Your task to perform on an android device: check google app version Image 0: 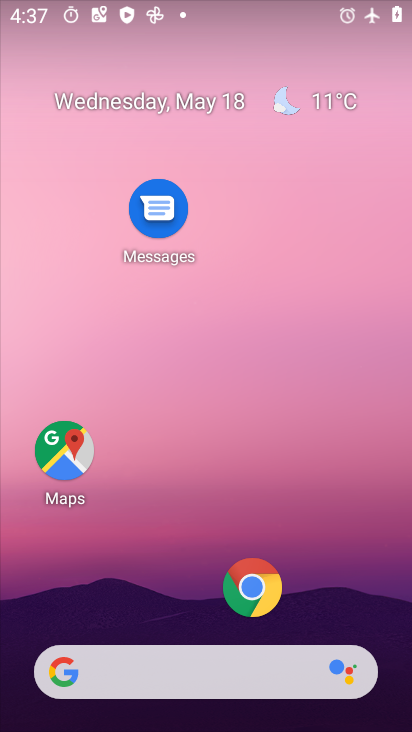
Step 0: drag from (226, 673) to (195, 339)
Your task to perform on an android device: check google app version Image 1: 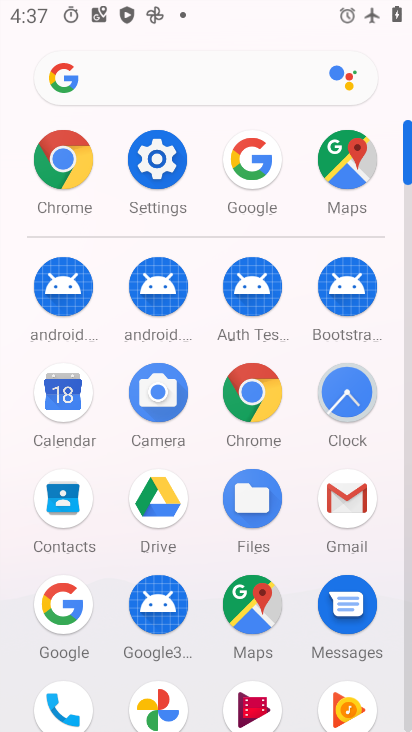
Step 1: click (65, 619)
Your task to perform on an android device: check google app version Image 2: 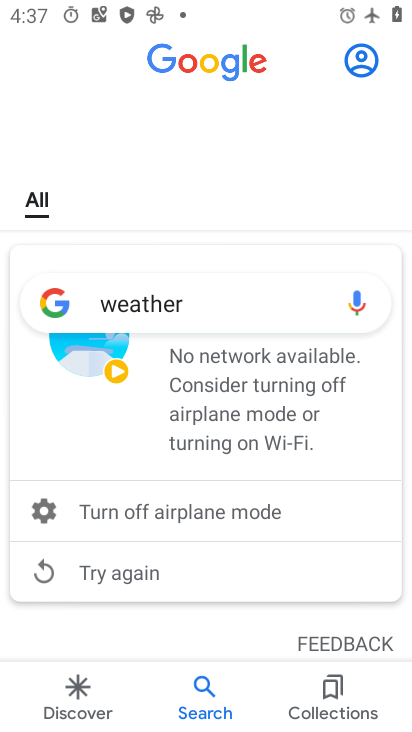
Step 2: click (335, 699)
Your task to perform on an android device: check google app version Image 3: 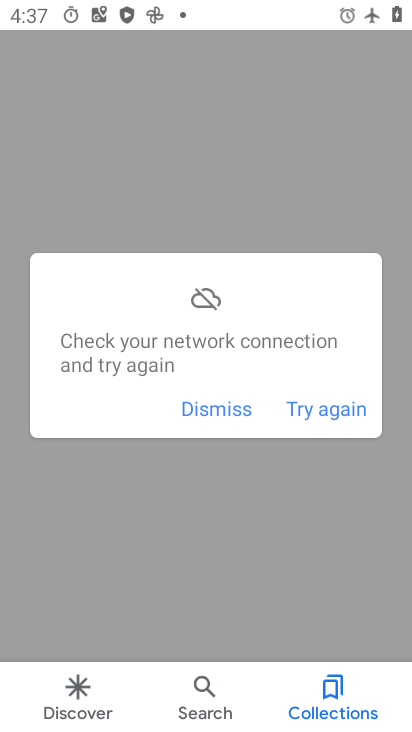
Step 3: task complete